Your task to perform on an android device: check google app version Image 0: 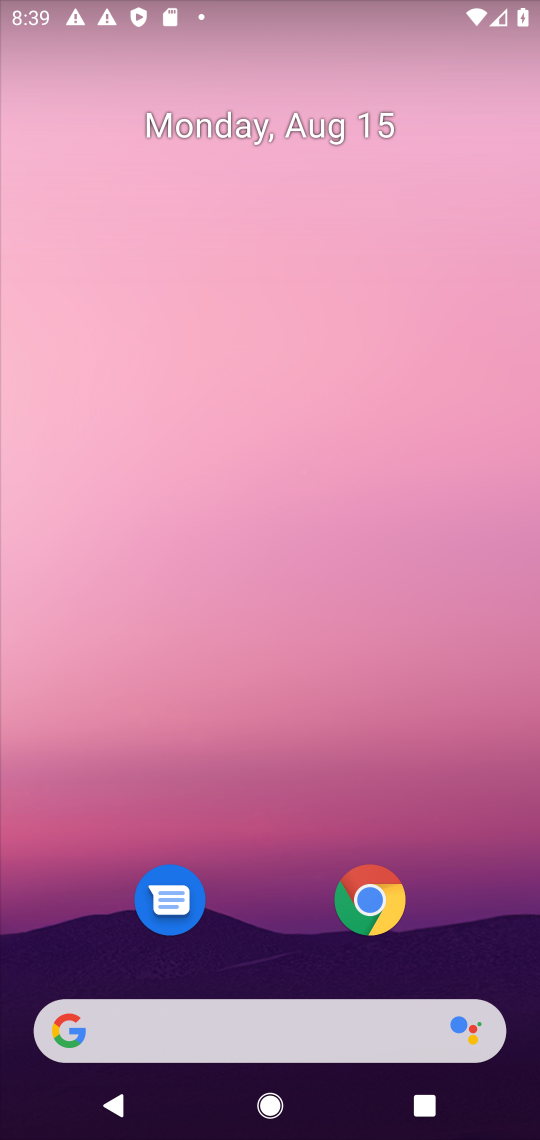
Step 0: drag from (382, 903) to (258, 547)
Your task to perform on an android device: check google app version Image 1: 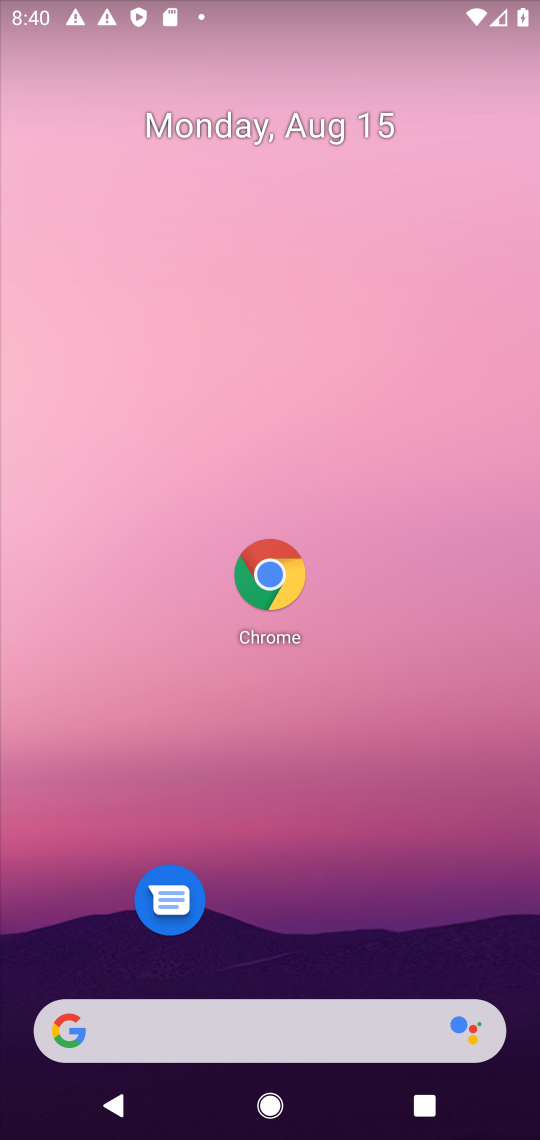
Step 1: drag from (378, 814) to (264, 225)
Your task to perform on an android device: check google app version Image 2: 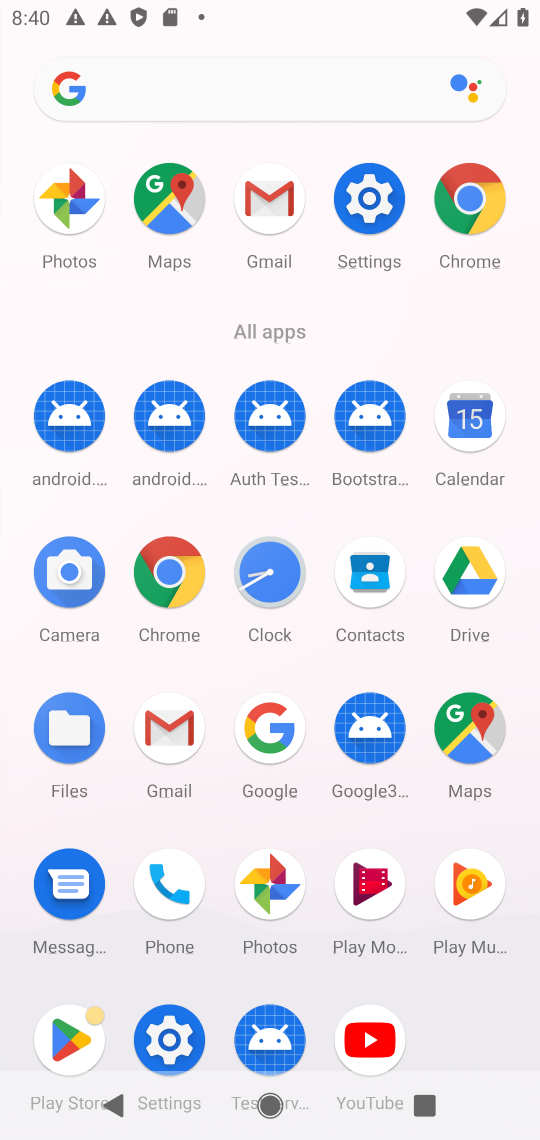
Step 2: click (252, 745)
Your task to perform on an android device: check google app version Image 3: 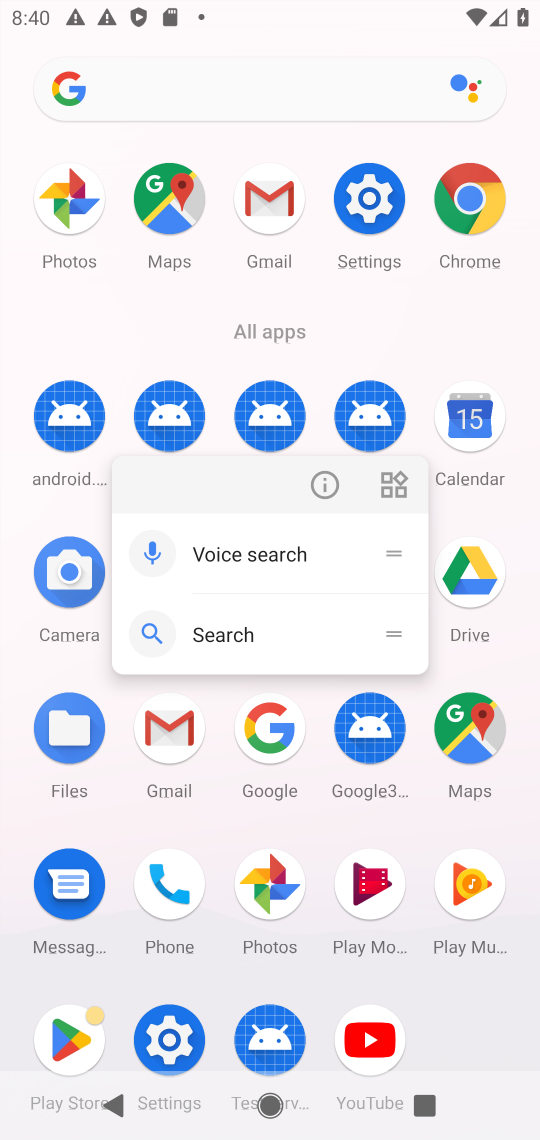
Step 3: click (314, 475)
Your task to perform on an android device: check google app version Image 4: 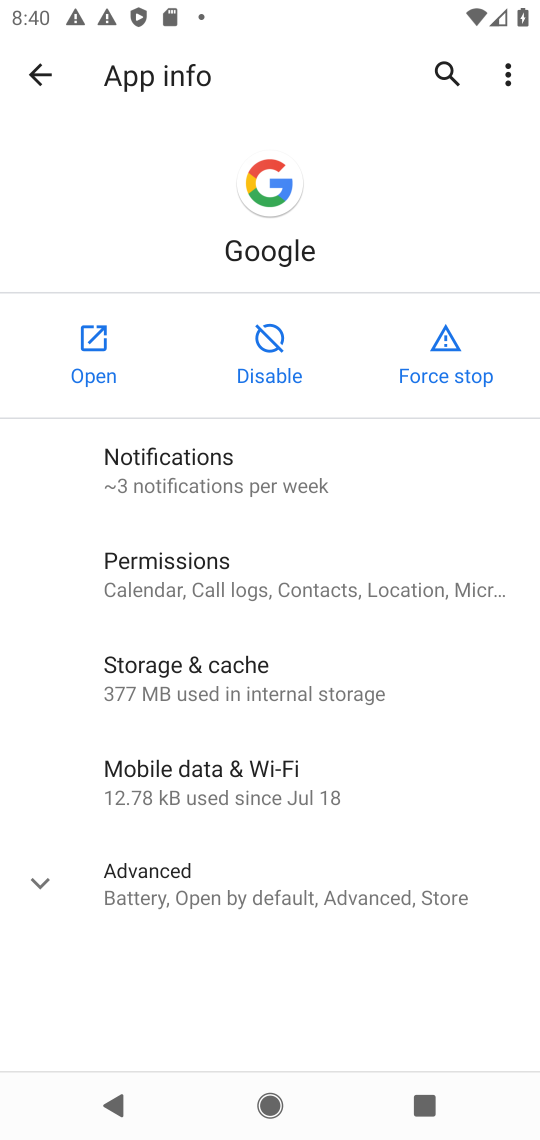
Step 4: drag from (428, 940) to (359, 811)
Your task to perform on an android device: check google app version Image 5: 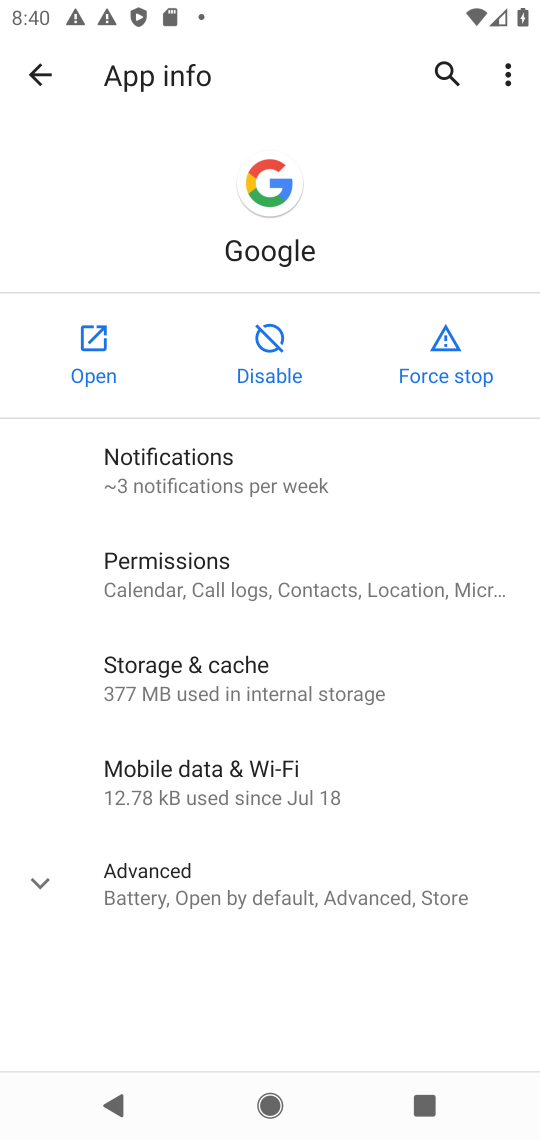
Step 5: click (369, 882)
Your task to perform on an android device: check google app version Image 6: 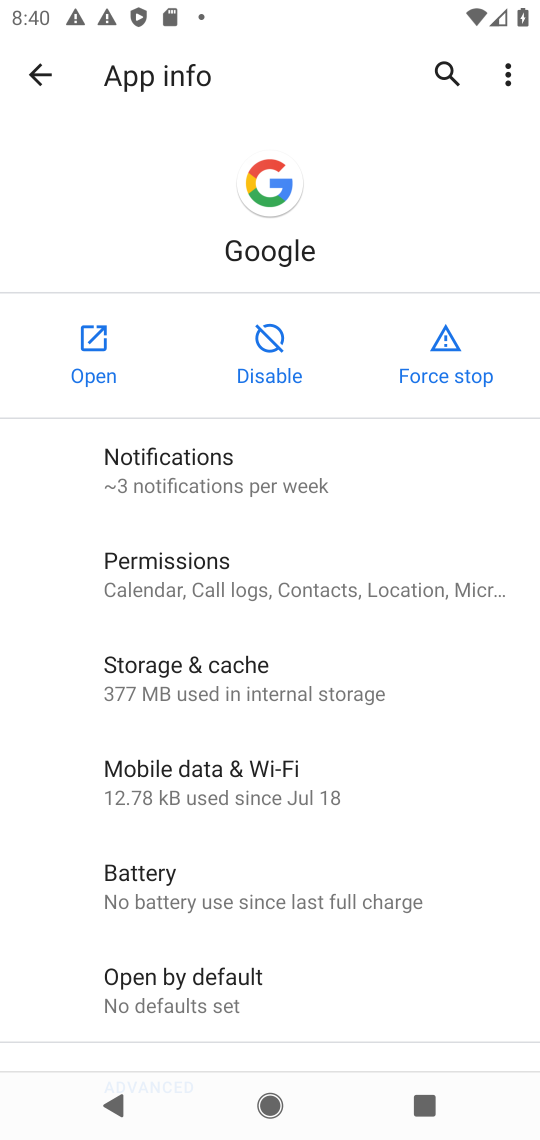
Step 6: task complete